Your task to perform on an android device: check battery use Image 0: 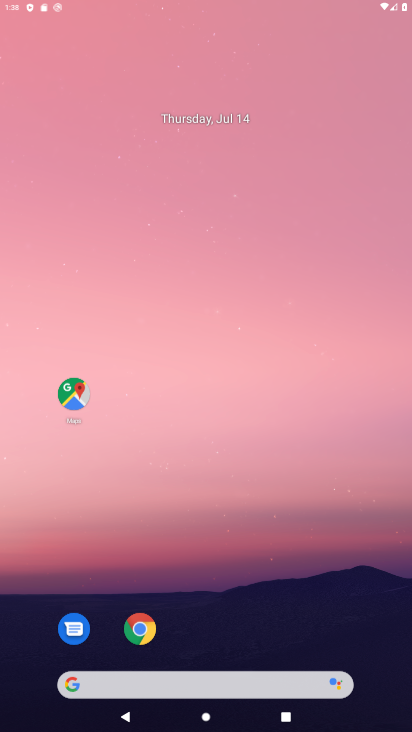
Step 0: drag from (263, 623) to (187, 88)
Your task to perform on an android device: check battery use Image 1: 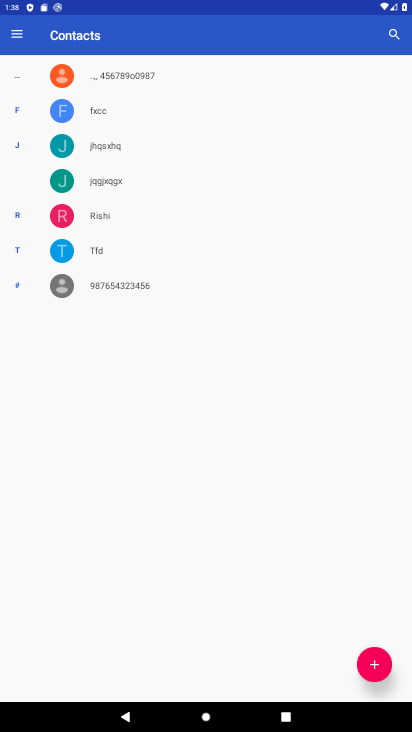
Step 1: press home button
Your task to perform on an android device: check battery use Image 2: 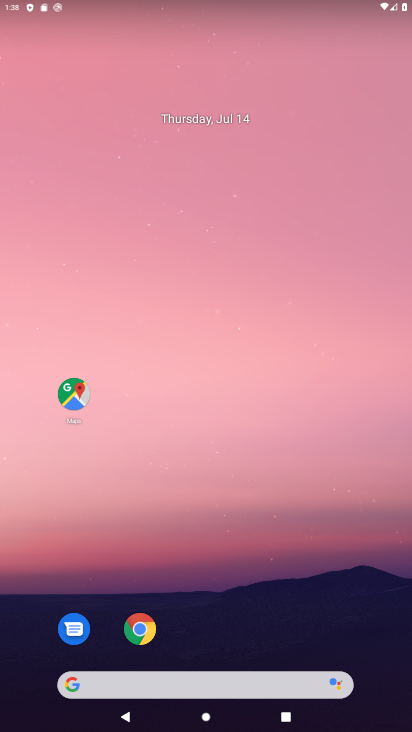
Step 2: drag from (265, 590) to (229, 12)
Your task to perform on an android device: check battery use Image 3: 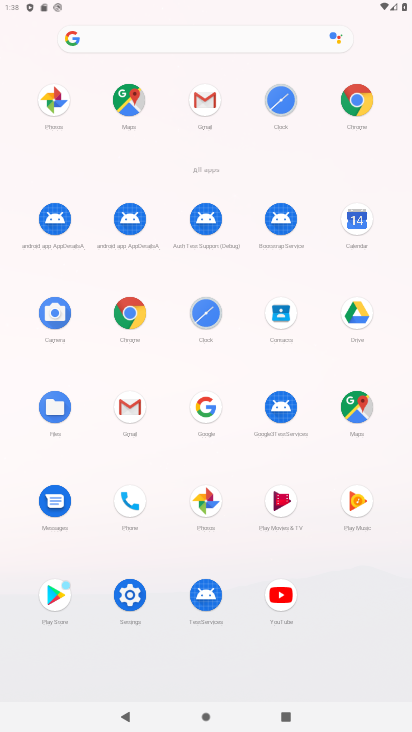
Step 3: click (123, 603)
Your task to perform on an android device: check battery use Image 4: 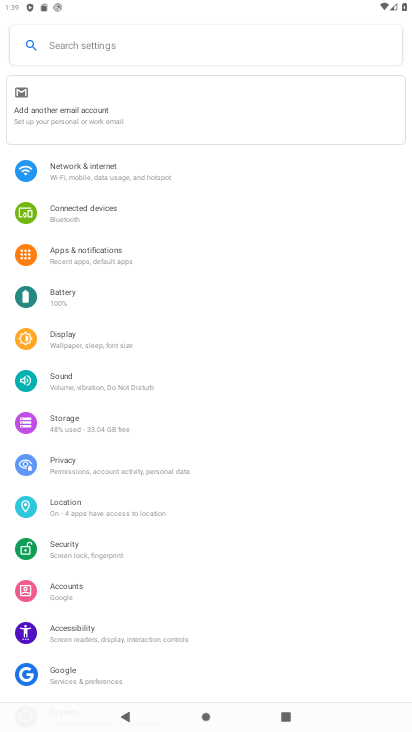
Step 4: click (73, 297)
Your task to perform on an android device: check battery use Image 5: 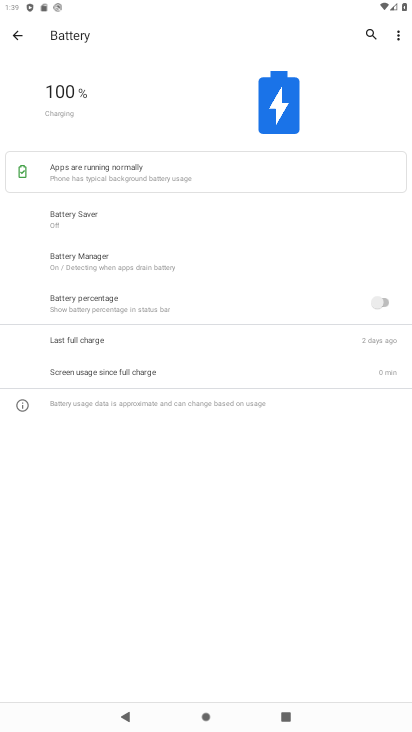
Step 5: click (399, 34)
Your task to perform on an android device: check battery use Image 6: 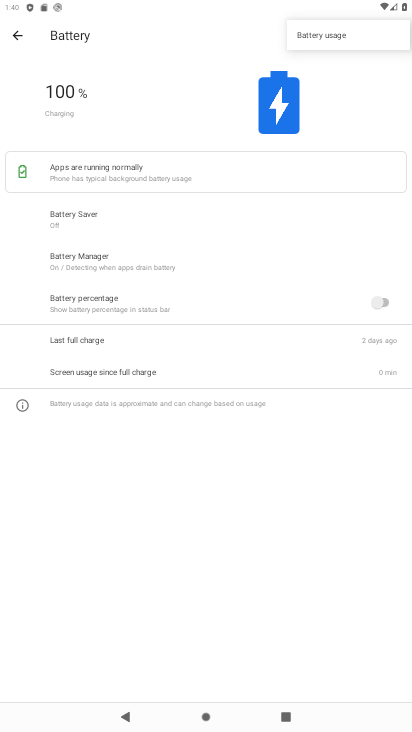
Step 6: click (367, 37)
Your task to perform on an android device: check battery use Image 7: 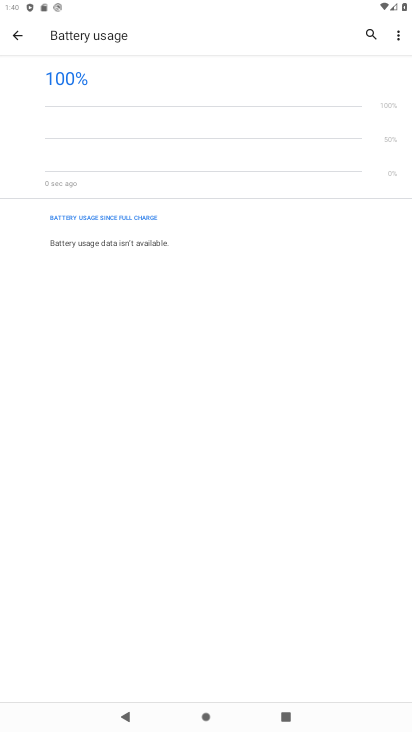
Step 7: task complete